Your task to perform on an android device: turn on airplane mode Image 0: 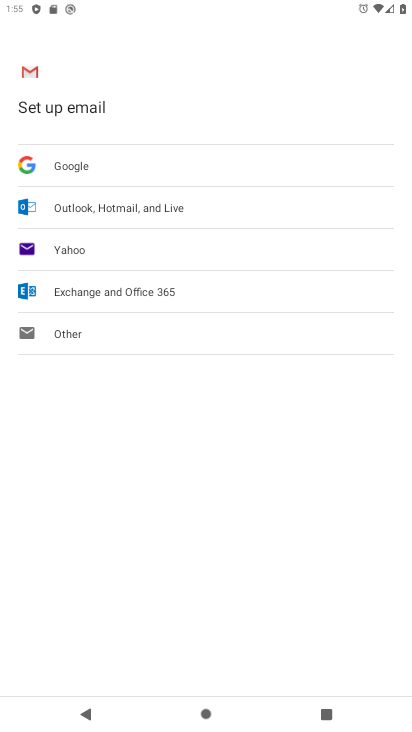
Step 0: press home button
Your task to perform on an android device: turn on airplane mode Image 1: 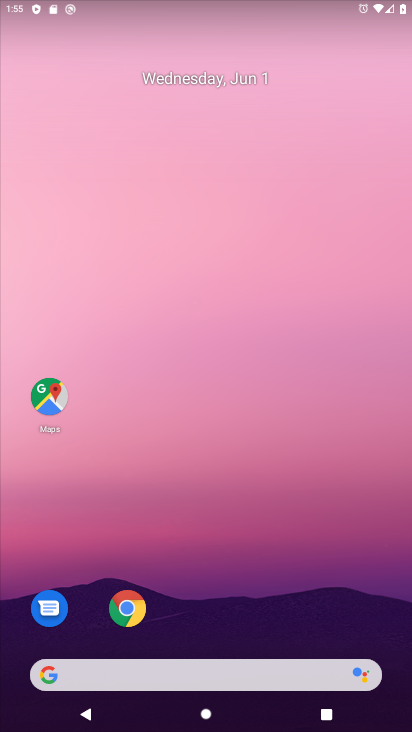
Step 1: drag from (151, 643) to (246, 112)
Your task to perform on an android device: turn on airplane mode Image 2: 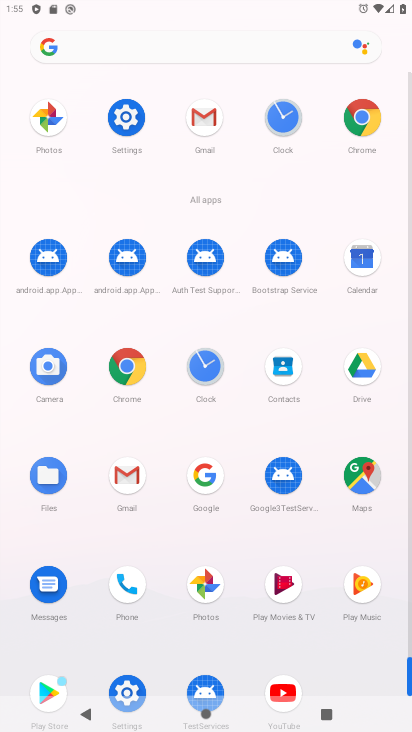
Step 2: drag from (153, 624) to (218, 357)
Your task to perform on an android device: turn on airplane mode Image 3: 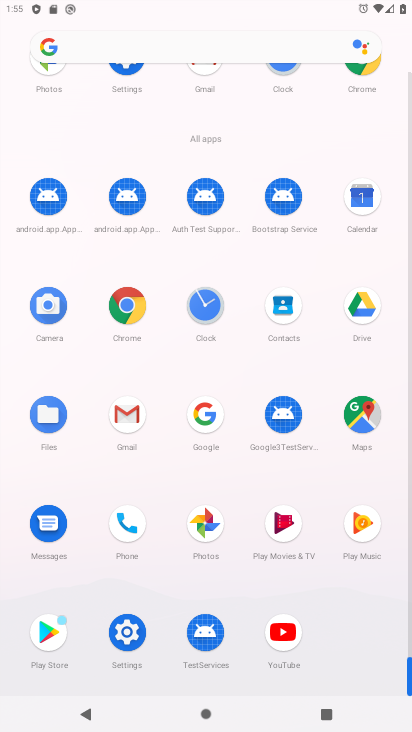
Step 3: click (133, 644)
Your task to perform on an android device: turn on airplane mode Image 4: 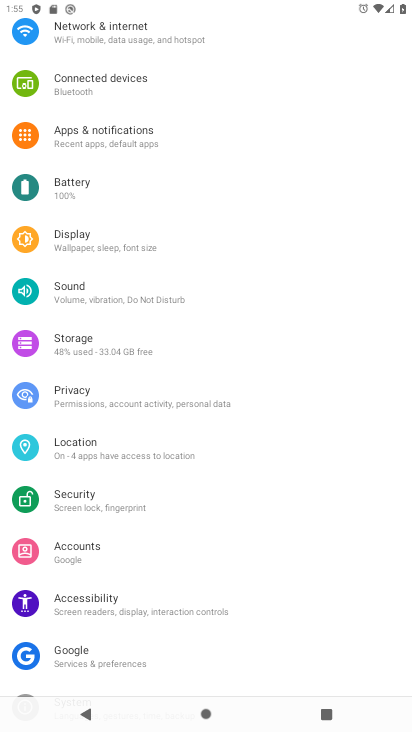
Step 4: drag from (205, 146) to (171, 575)
Your task to perform on an android device: turn on airplane mode Image 5: 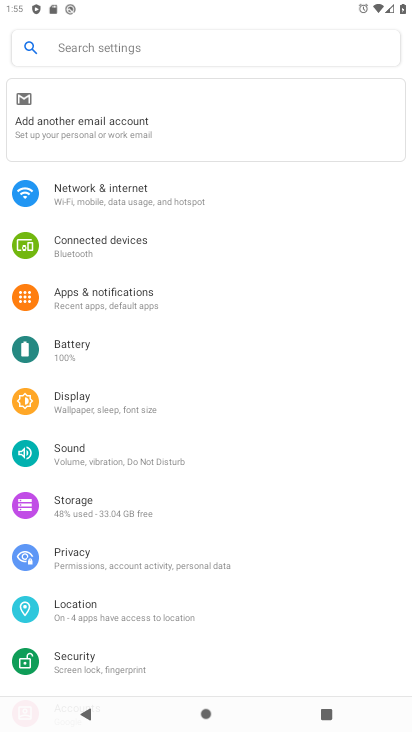
Step 5: click (210, 198)
Your task to perform on an android device: turn on airplane mode Image 6: 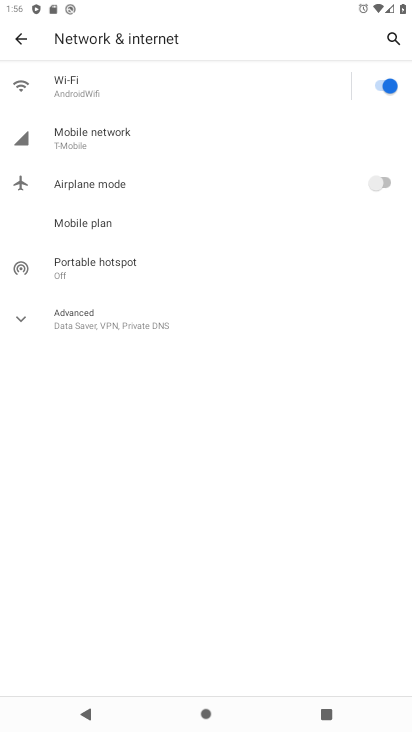
Step 6: click (397, 187)
Your task to perform on an android device: turn on airplane mode Image 7: 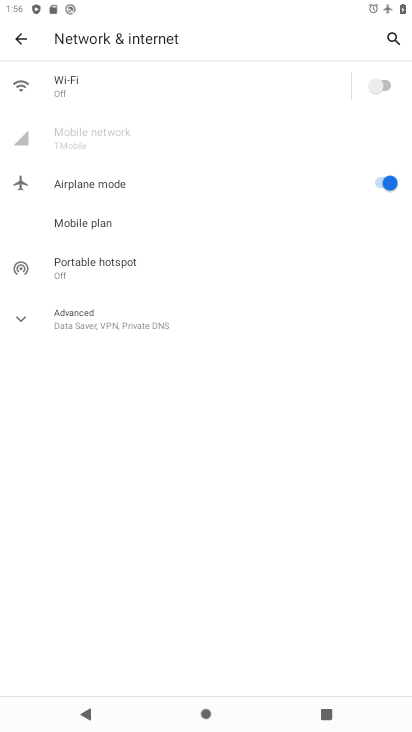
Step 7: task complete